Your task to perform on an android device: turn off notifications settings in the gmail app Image 0: 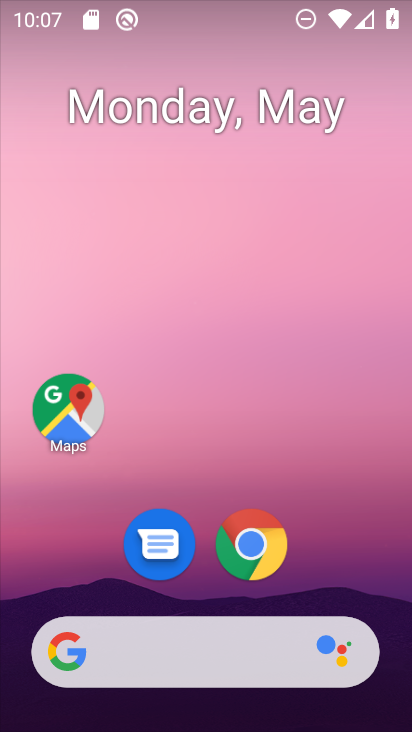
Step 0: drag from (319, 540) to (225, 247)
Your task to perform on an android device: turn off notifications settings in the gmail app Image 1: 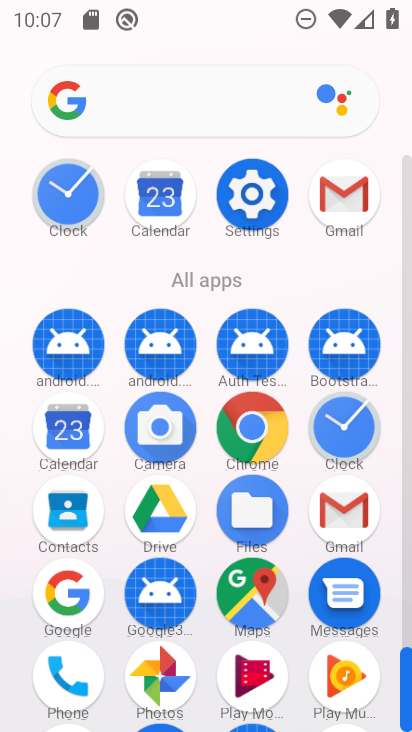
Step 1: click (335, 215)
Your task to perform on an android device: turn off notifications settings in the gmail app Image 2: 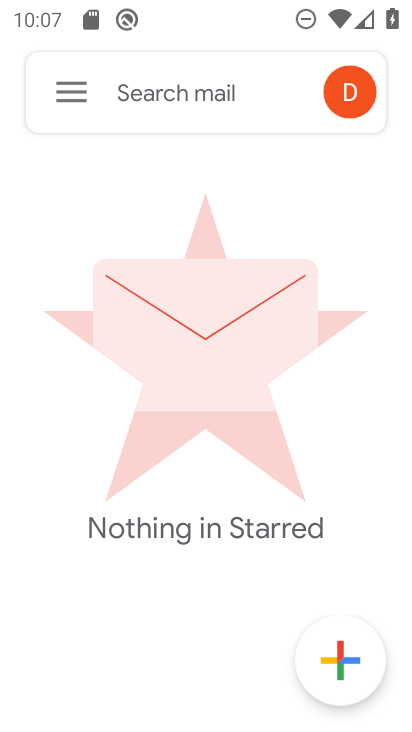
Step 2: click (63, 94)
Your task to perform on an android device: turn off notifications settings in the gmail app Image 3: 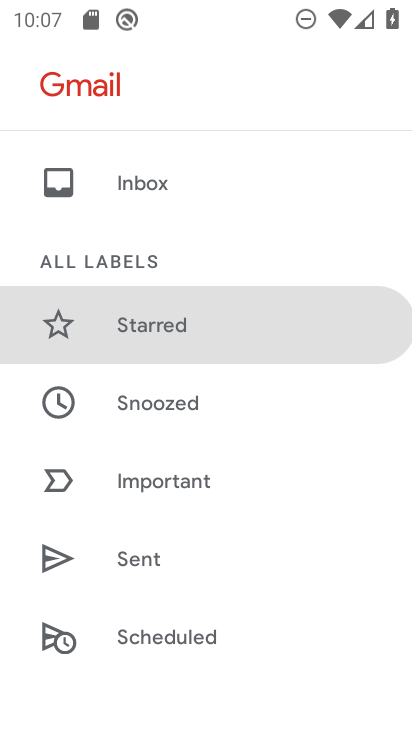
Step 3: drag from (263, 566) to (264, 134)
Your task to perform on an android device: turn off notifications settings in the gmail app Image 4: 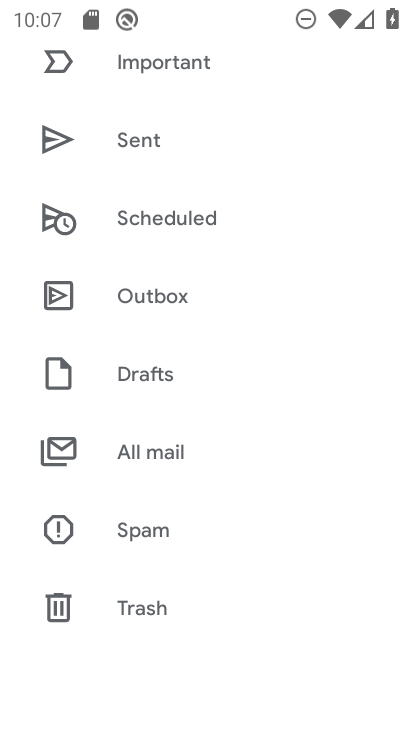
Step 4: drag from (238, 620) to (210, 205)
Your task to perform on an android device: turn off notifications settings in the gmail app Image 5: 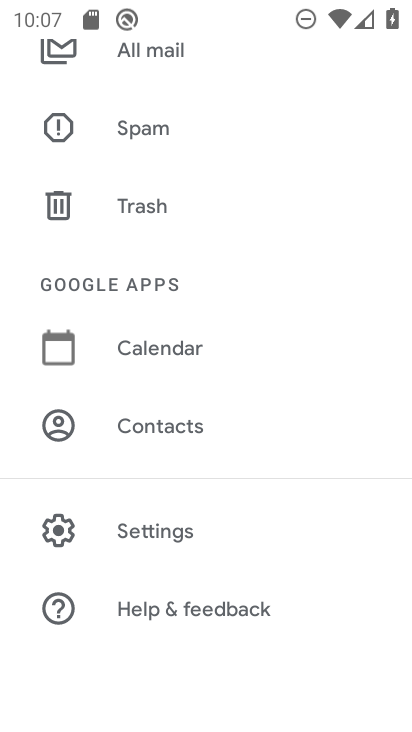
Step 5: click (170, 525)
Your task to perform on an android device: turn off notifications settings in the gmail app Image 6: 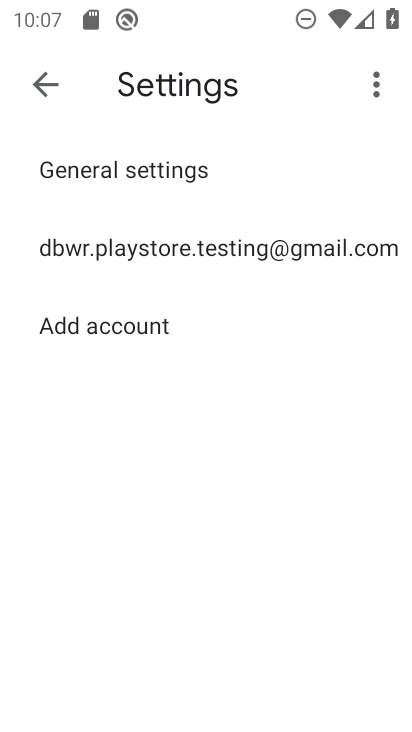
Step 6: click (222, 253)
Your task to perform on an android device: turn off notifications settings in the gmail app Image 7: 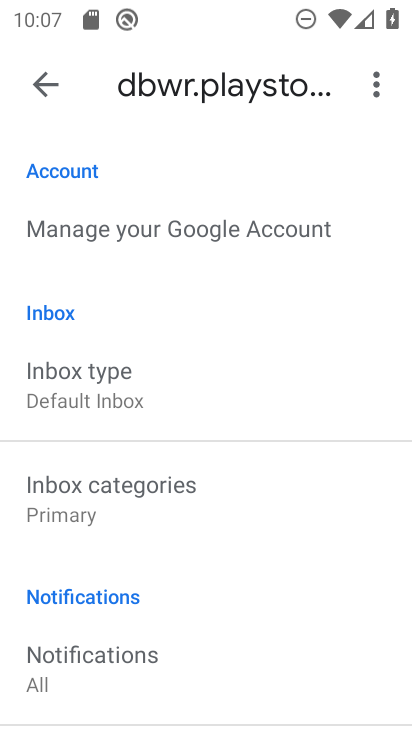
Step 7: drag from (220, 640) to (191, 418)
Your task to perform on an android device: turn off notifications settings in the gmail app Image 8: 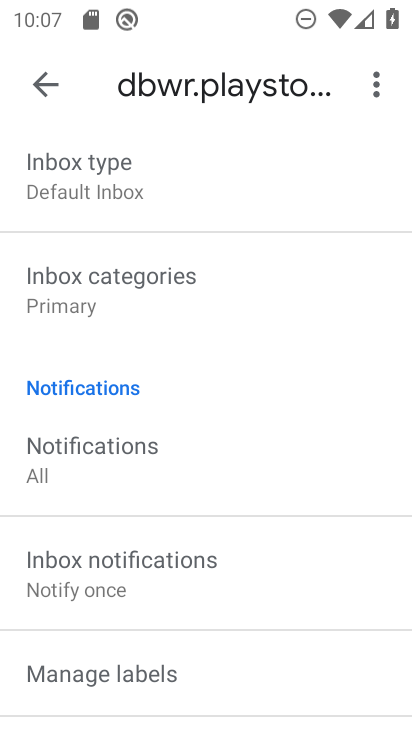
Step 8: drag from (90, 701) to (81, 487)
Your task to perform on an android device: turn off notifications settings in the gmail app Image 9: 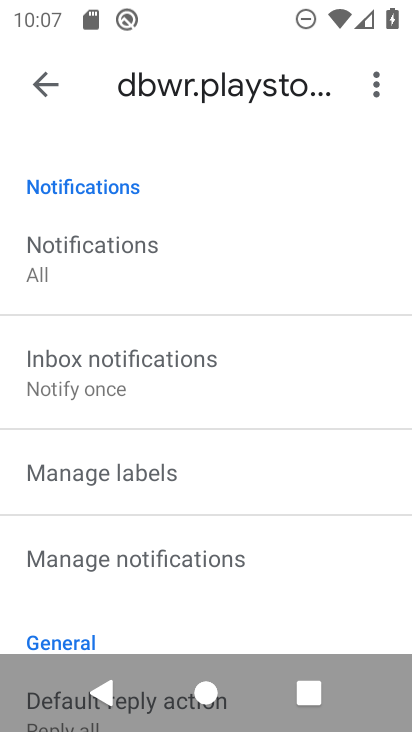
Step 9: click (79, 555)
Your task to perform on an android device: turn off notifications settings in the gmail app Image 10: 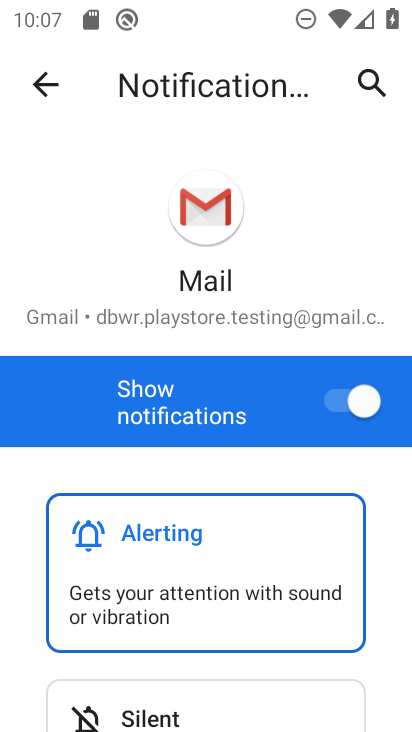
Step 10: click (347, 407)
Your task to perform on an android device: turn off notifications settings in the gmail app Image 11: 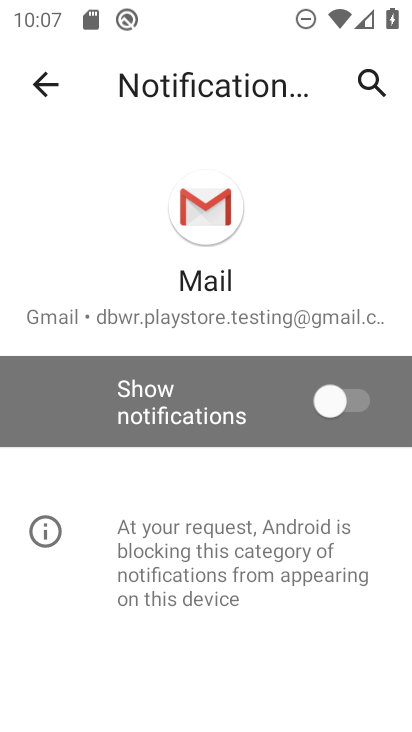
Step 11: task complete